Your task to perform on an android device: Open eBay Image 0: 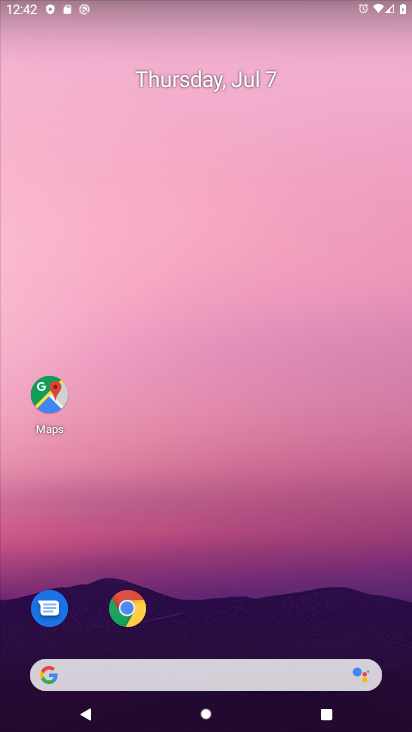
Step 0: drag from (231, 593) to (261, 47)
Your task to perform on an android device: Open eBay Image 1: 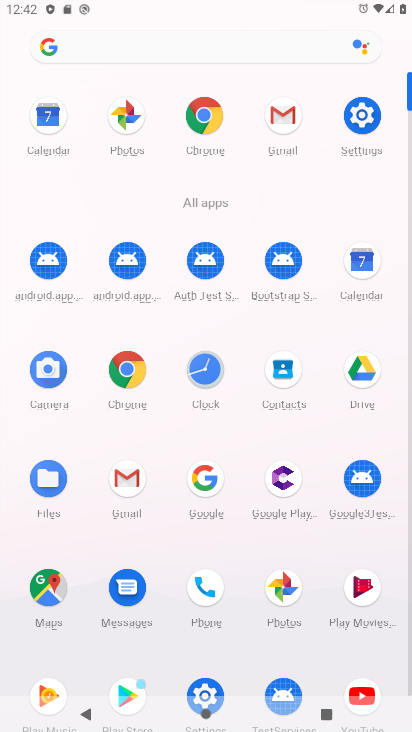
Step 1: click (208, 117)
Your task to perform on an android device: Open eBay Image 2: 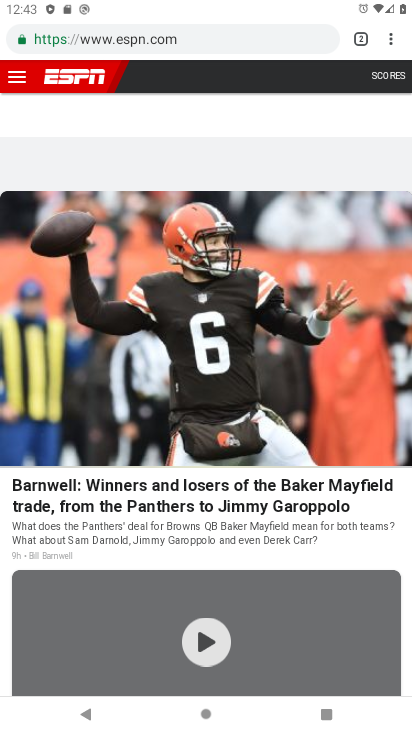
Step 2: click (370, 39)
Your task to perform on an android device: Open eBay Image 3: 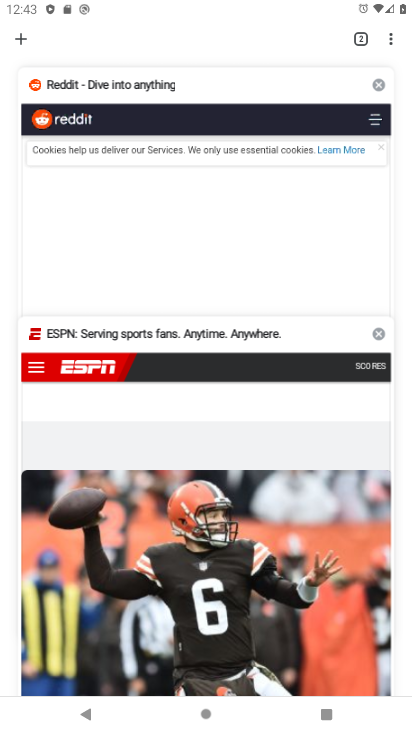
Step 3: click (11, 35)
Your task to perform on an android device: Open eBay Image 4: 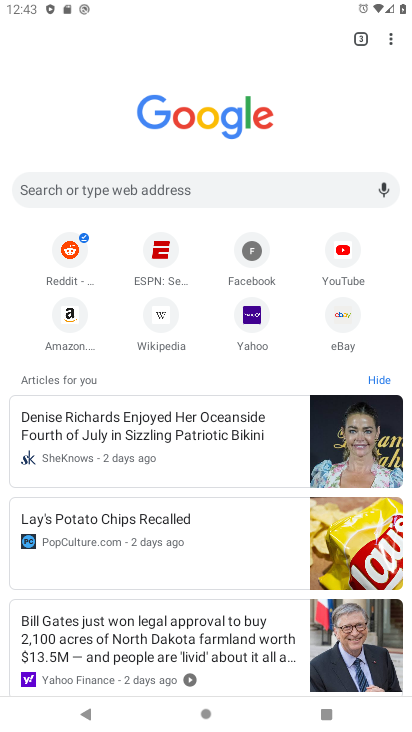
Step 4: click (337, 318)
Your task to perform on an android device: Open eBay Image 5: 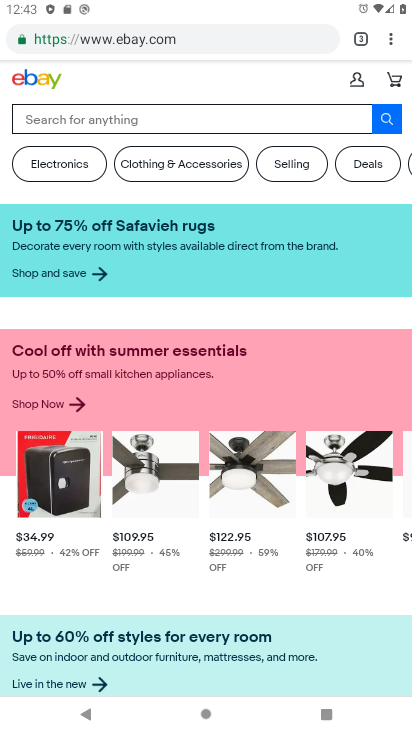
Step 5: task complete